Your task to perform on an android device: View the shopping cart on bestbuy. Add bose soundlink mini to the cart on bestbuy Image 0: 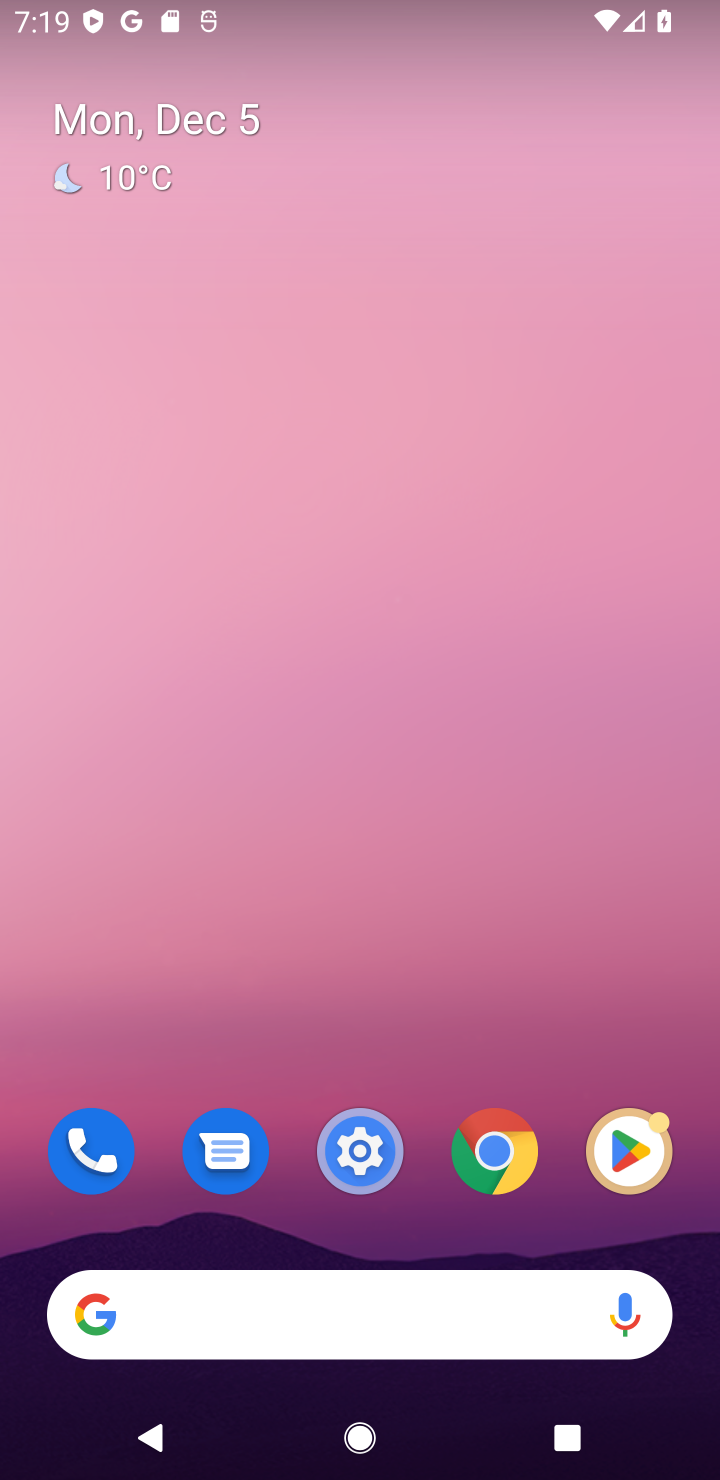
Step 0: click (347, 1295)
Your task to perform on an android device: View the shopping cart on bestbuy. Add bose soundlink mini to the cart on bestbuy Image 1: 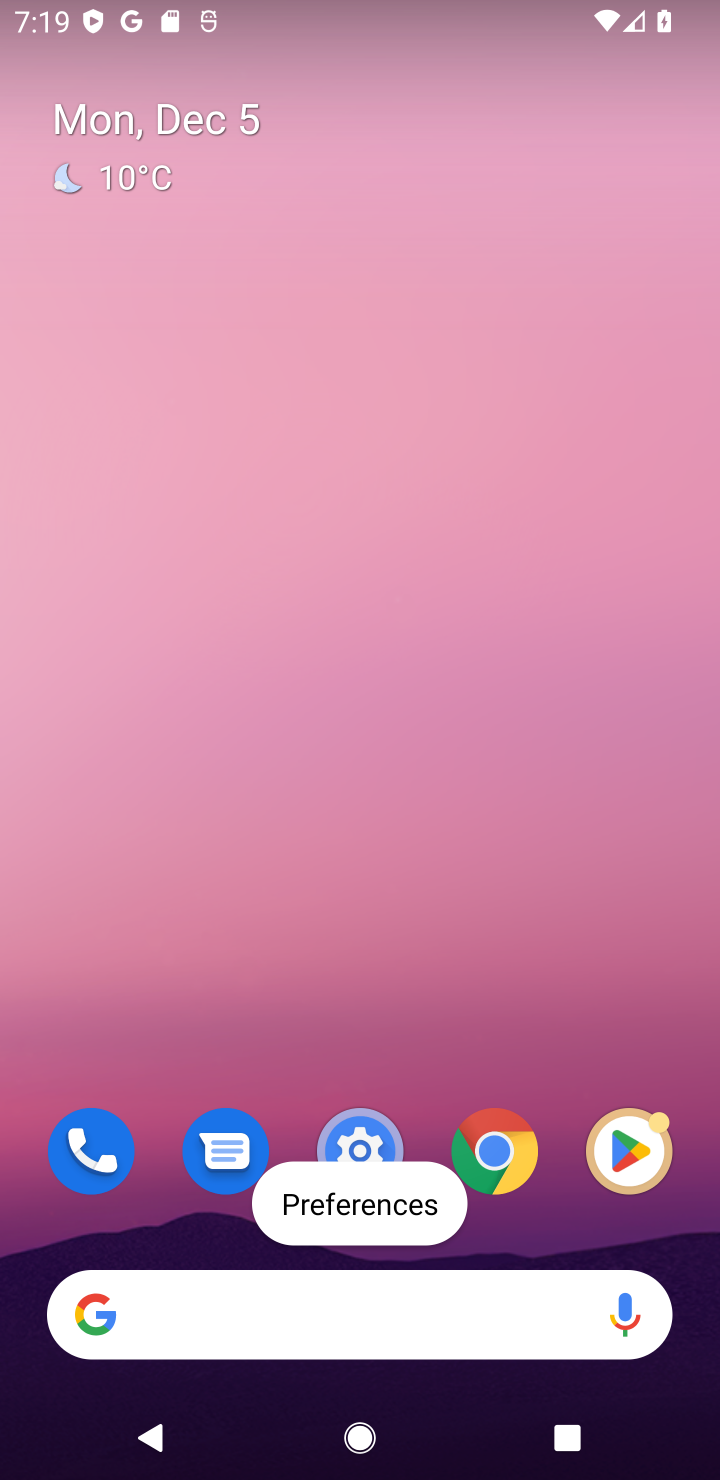
Step 1: click (407, 1318)
Your task to perform on an android device: View the shopping cart on bestbuy. Add bose soundlink mini to the cart on bestbuy Image 2: 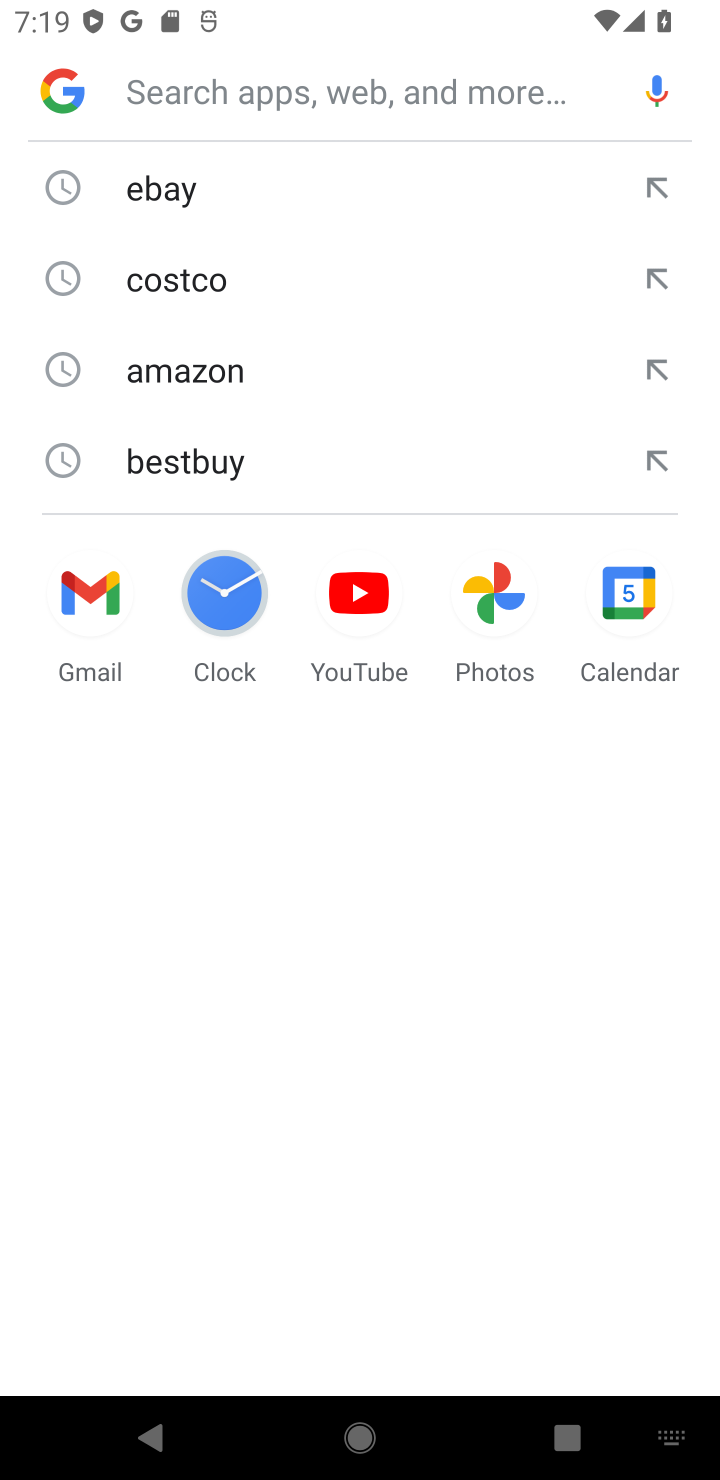
Step 2: type "bestbuy"
Your task to perform on an android device: View the shopping cart on bestbuy. Add bose soundlink mini to the cart on bestbuy Image 3: 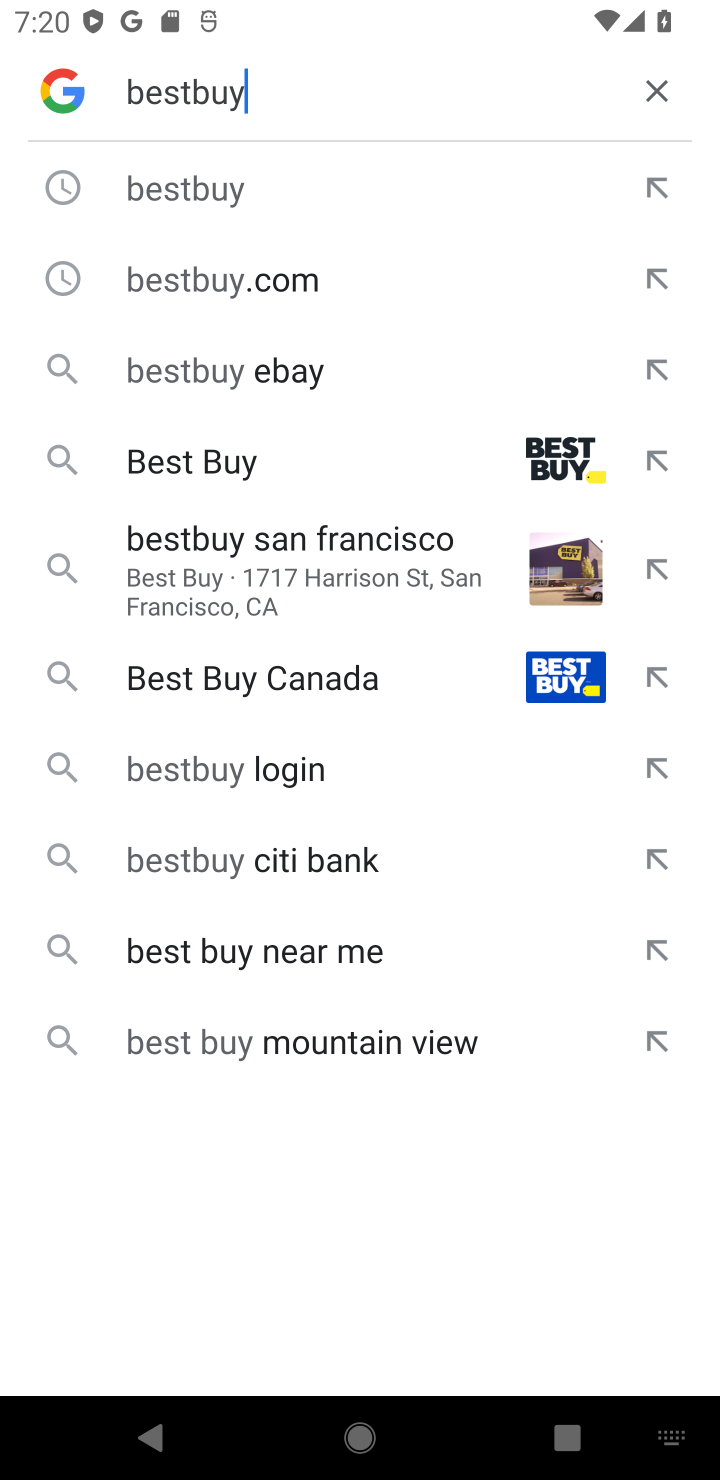
Step 3: click (248, 200)
Your task to perform on an android device: View the shopping cart on bestbuy. Add bose soundlink mini to the cart on bestbuy Image 4: 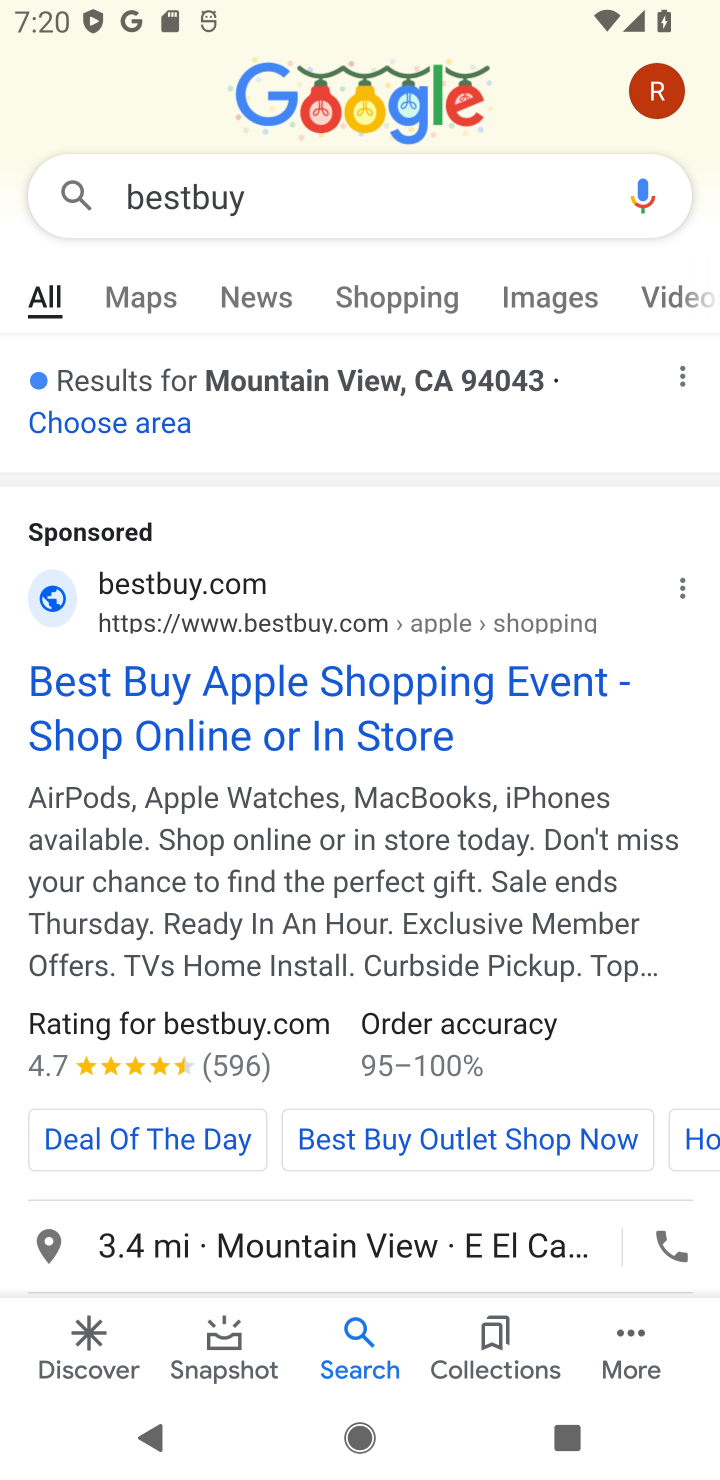
Step 4: click (127, 714)
Your task to perform on an android device: View the shopping cart on bestbuy. Add bose soundlink mini to the cart on bestbuy Image 5: 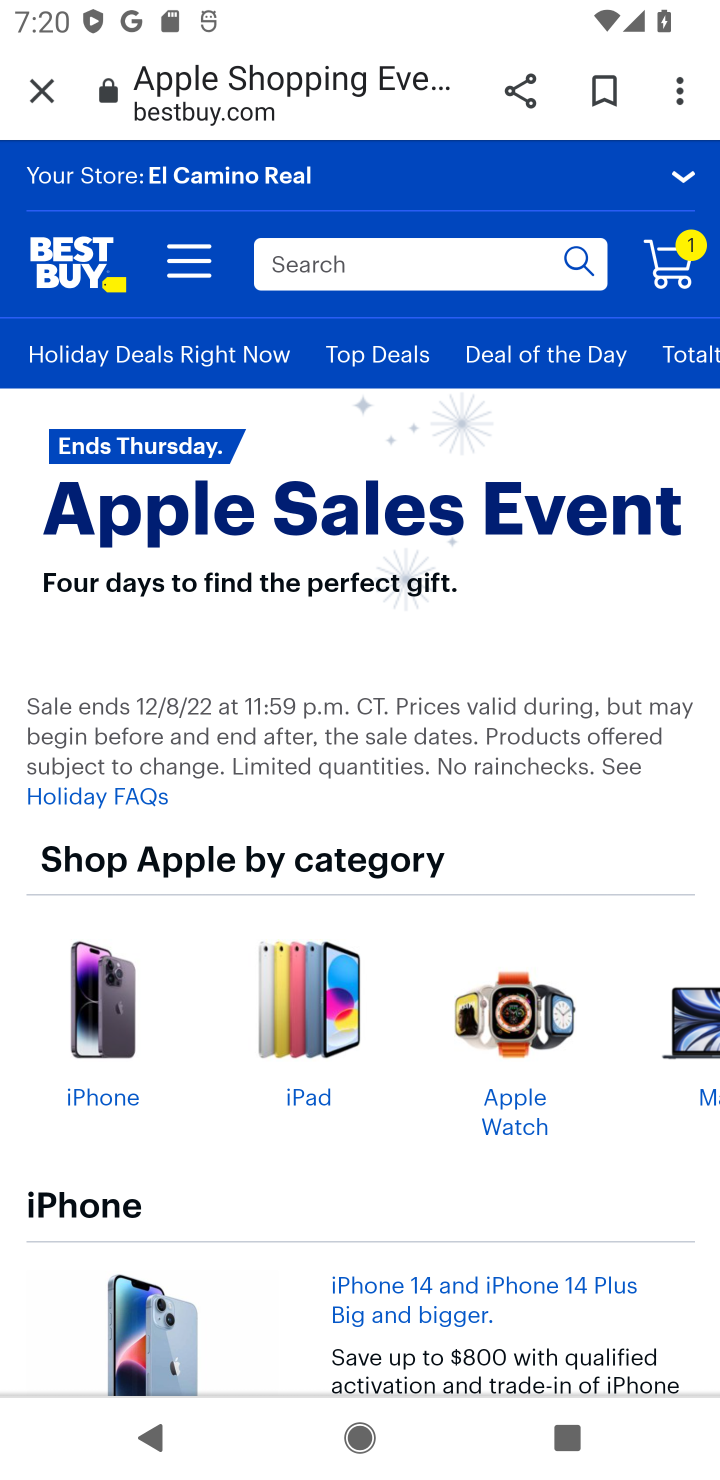
Step 5: click (420, 283)
Your task to perform on an android device: View the shopping cart on bestbuy. Add bose soundlink mini to the cart on bestbuy Image 6: 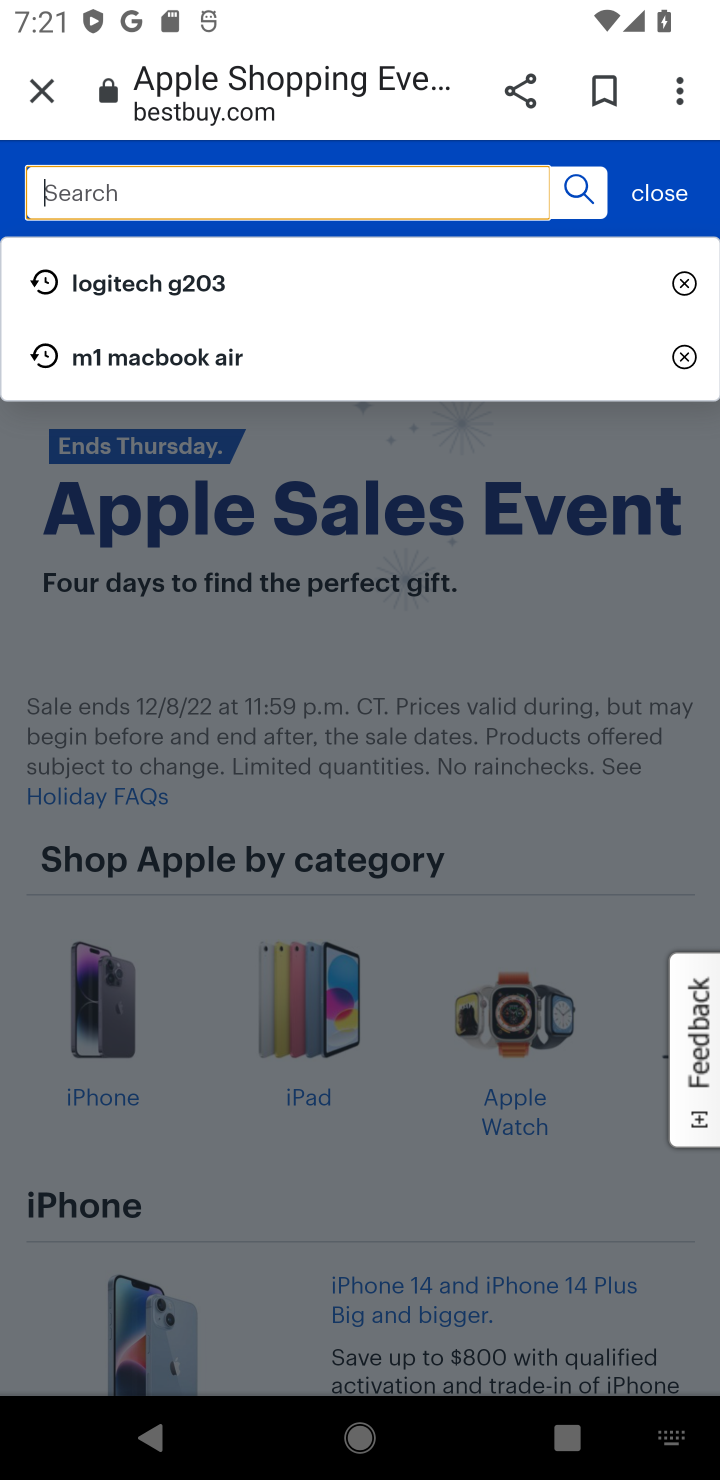
Step 6: type "bose soundlink"
Your task to perform on an android device: View the shopping cart on bestbuy. Add bose soundlink mini to the cart on bestbuy Image 7: 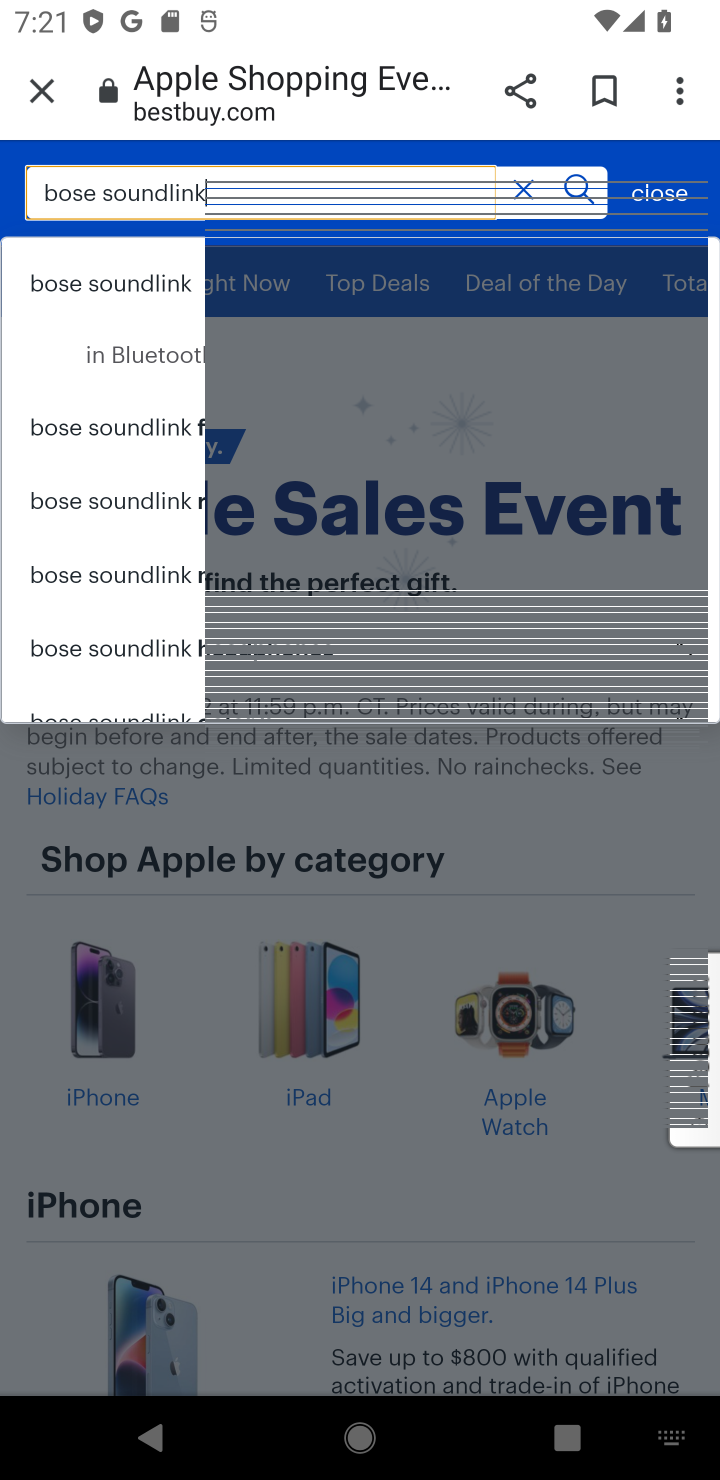
Step 7: click (243, 267)
Your task to perform on an android device: View the shopping cart on bestbuy. Add bose soundlink mini to the cart on bestbuy Image 8: 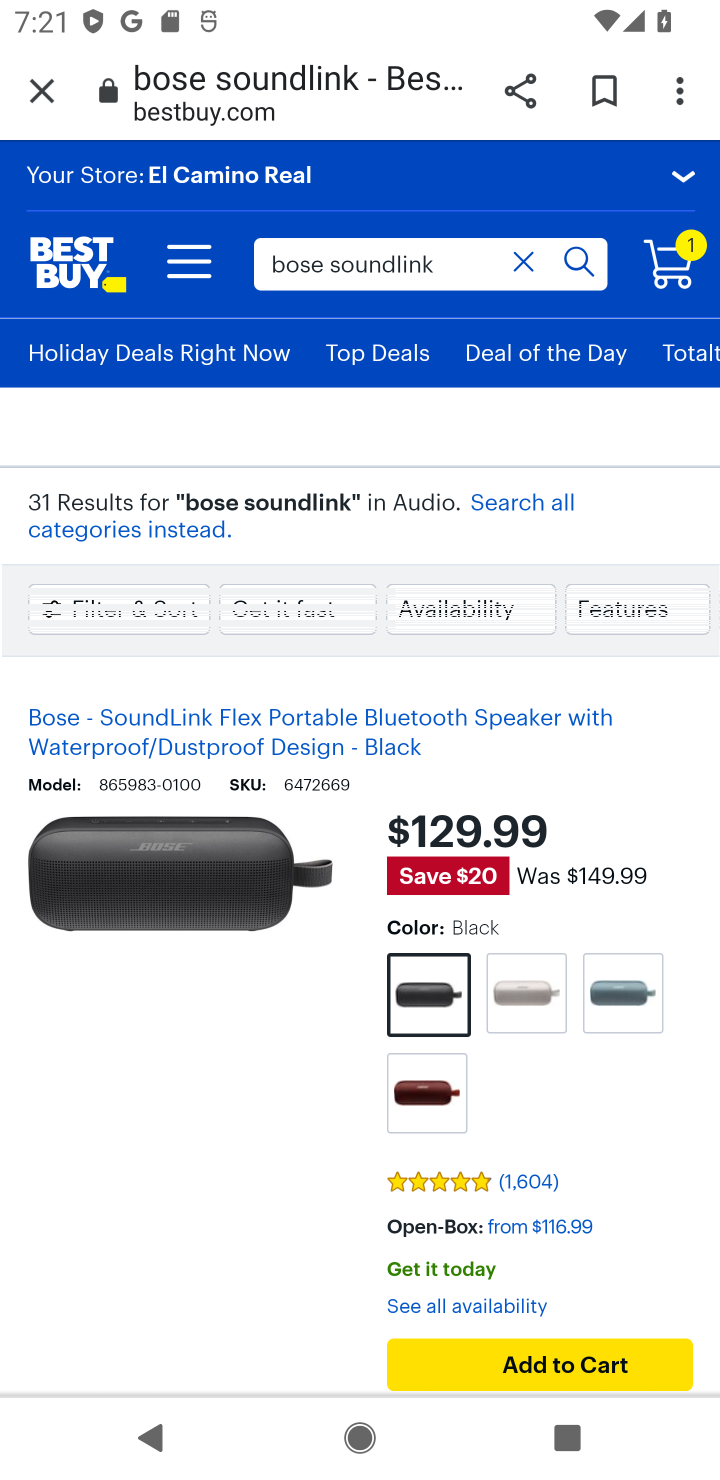
Step 8: drag from (281, 1247) to (250, 956)
Your task to perform on an android device: View the shopping cart on bestbuy. Add bose soundlink mini to the cart on bestbuy Image 9: 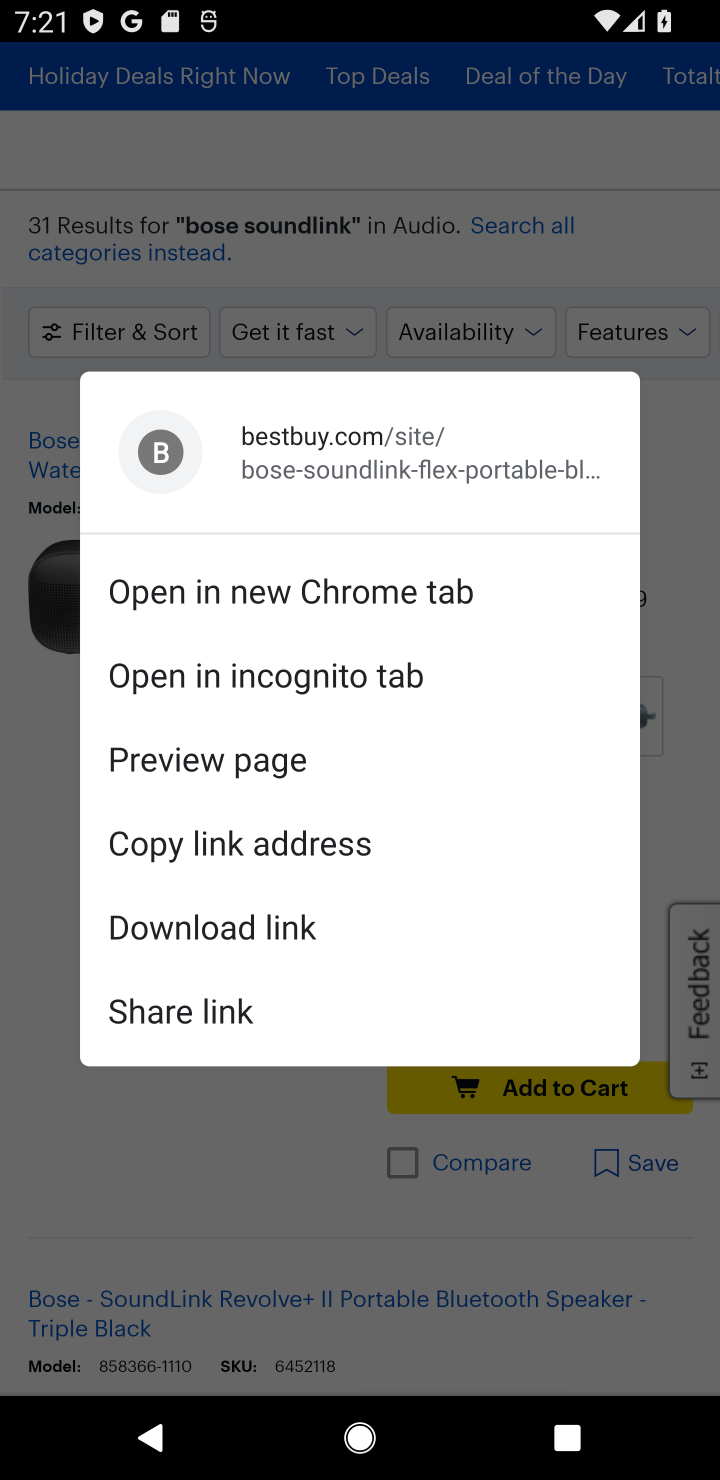
Step 9: click (285, 1165)
Your task to perform on an android device: View the shopping cart on bestbuy. Add bose soundlink mini to the cart on bestbuy Image 10: 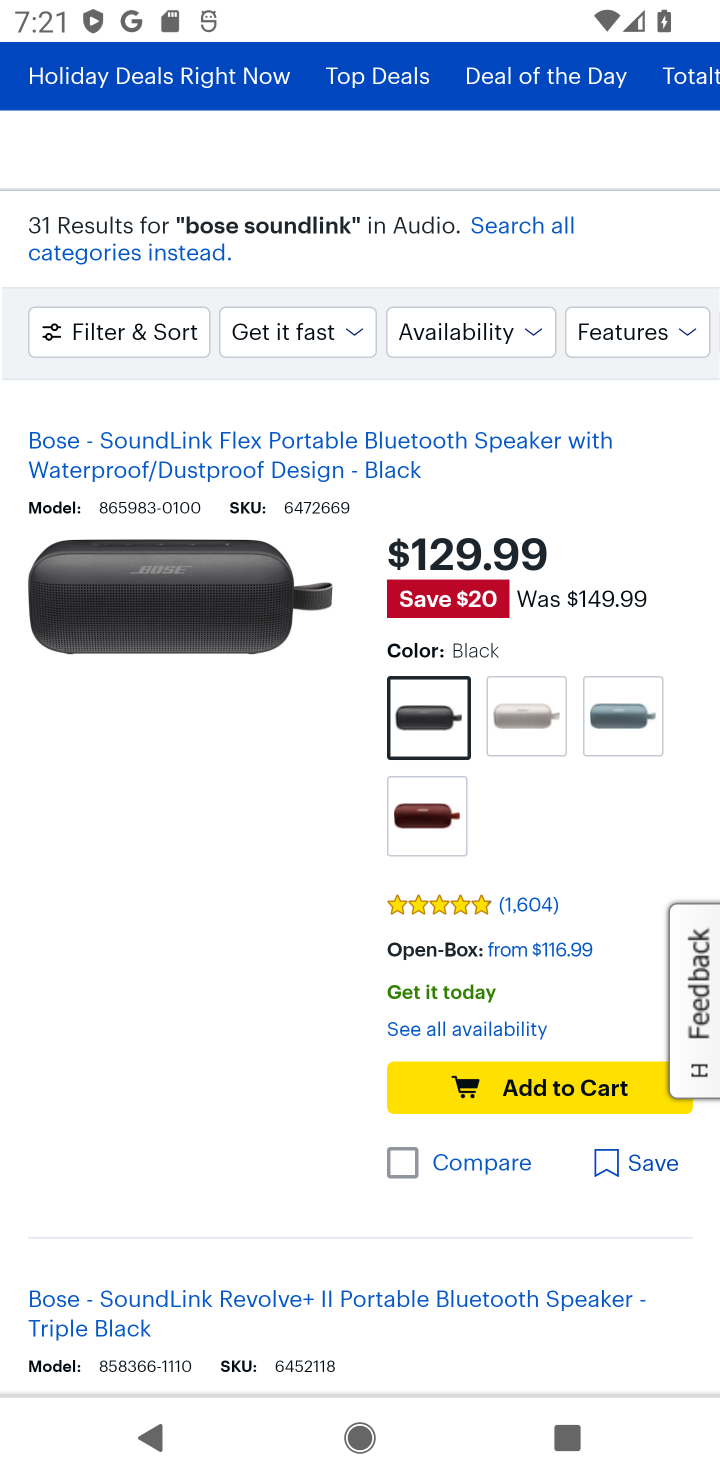
Step 10: click (465, 1097)
Your task to perform on an android device: View the shopping cart on bestbuy. Add bose soundlink mini to the cart on bestbuy Image 11: 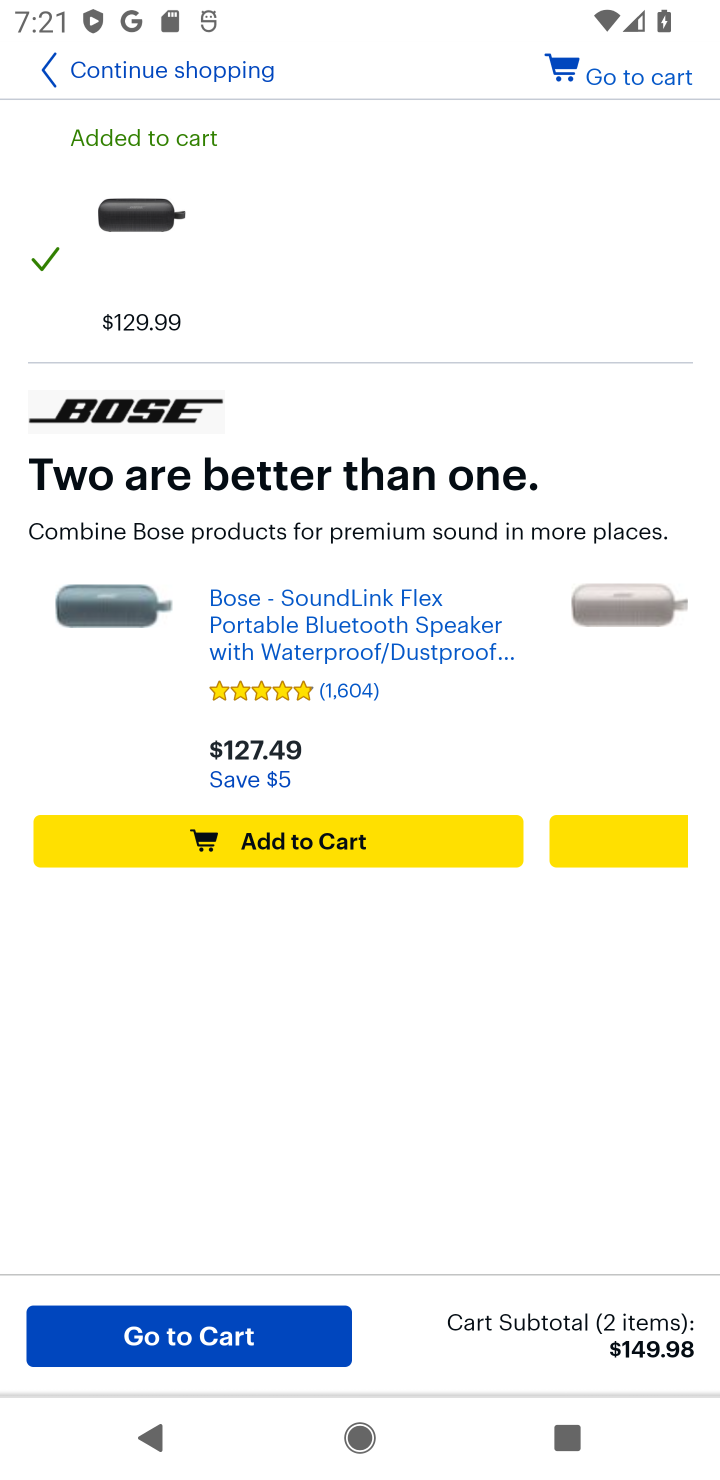
Step 11: click (384, 873)
Your task to perform on an android device: View the shopping cart on bestbuy. Add bose soundlink mini to the cart on bestbuy Image 12: 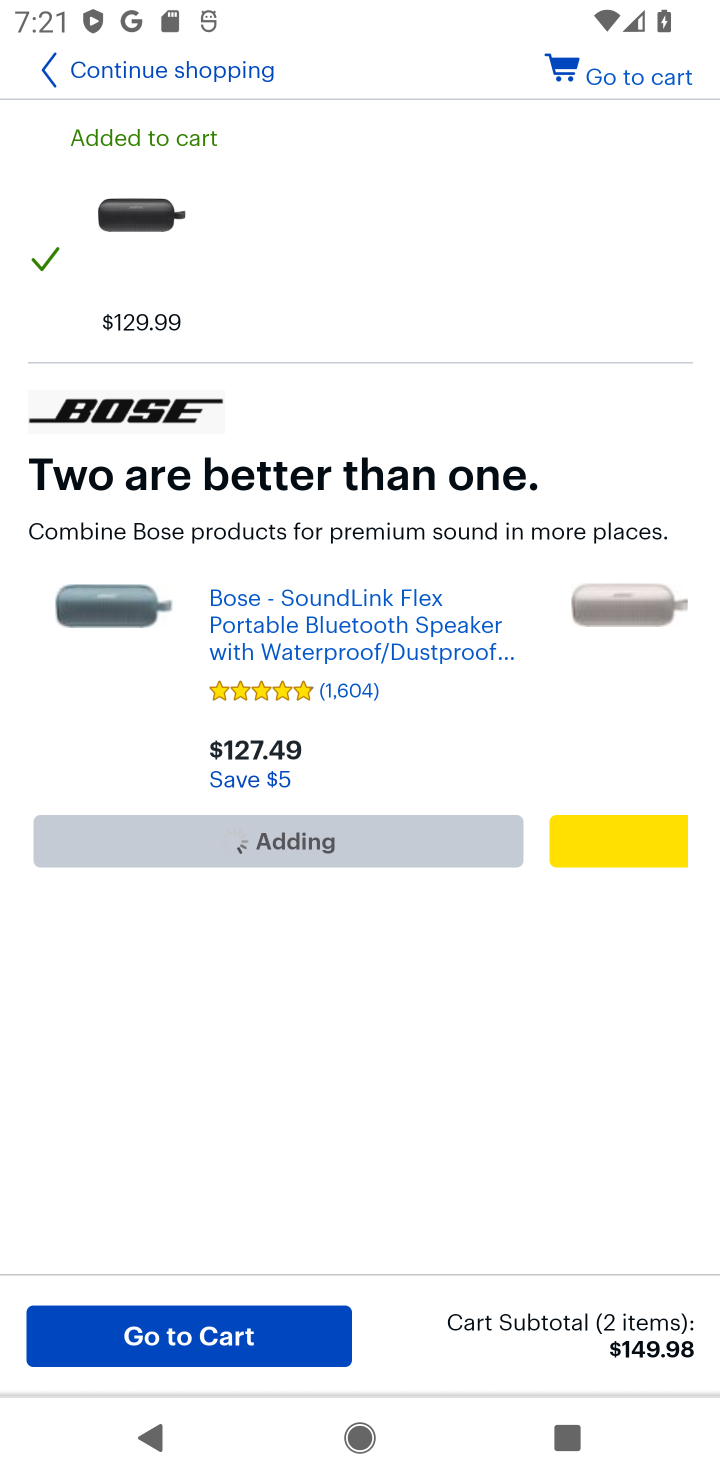
Step 12: task complete